Your task to perform on an android device: turn smart compose on in the gmail app Image 0: 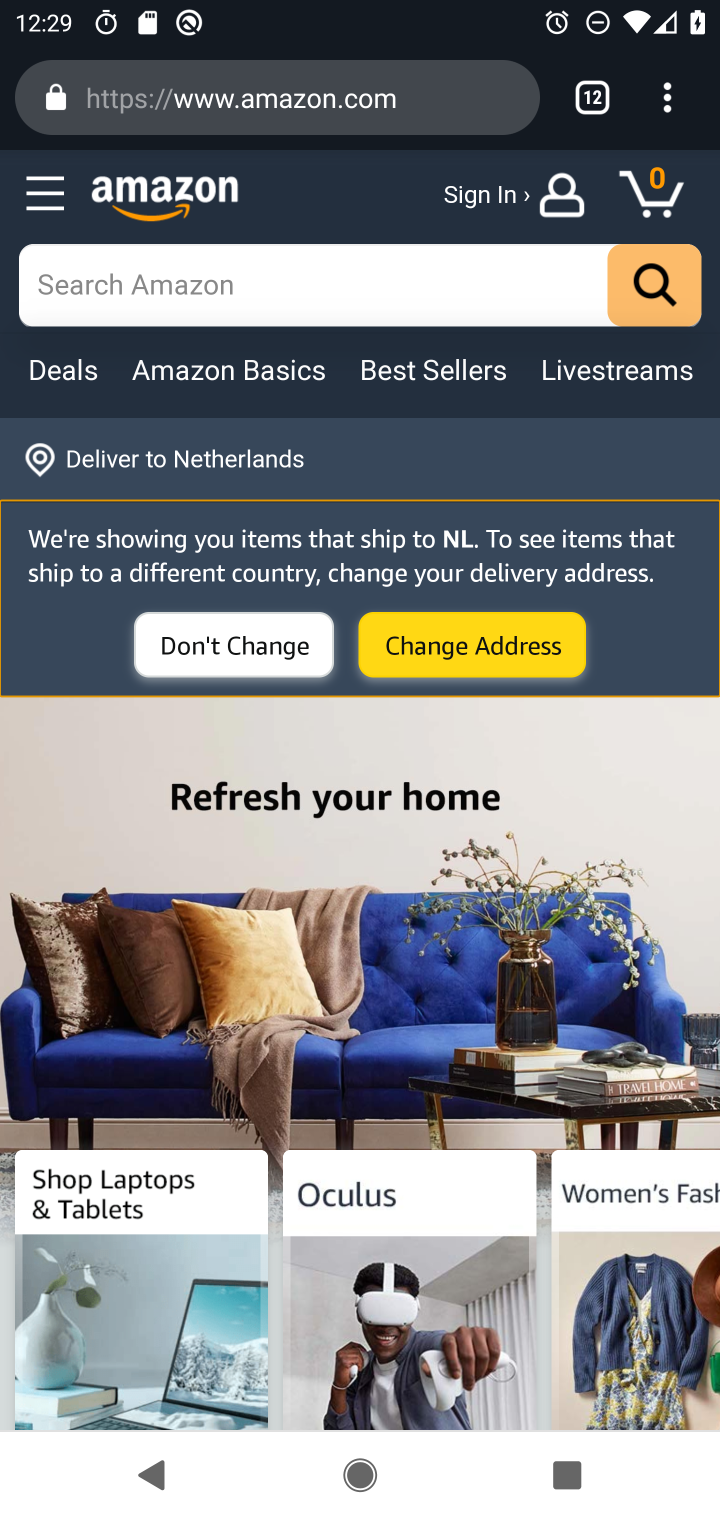
Step 0: press home button
Your task to perform on an android device: turn smart compose on in the gmail app Image 1: 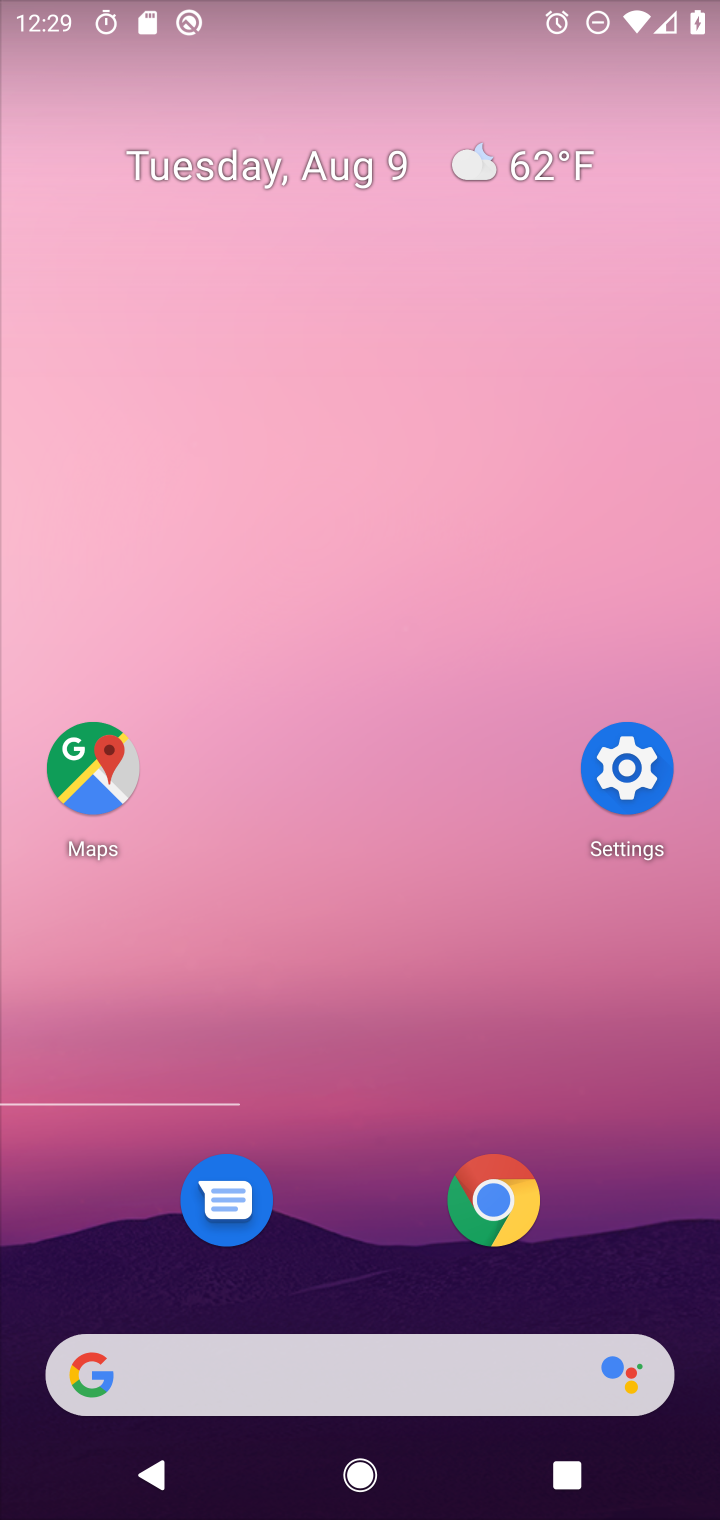
Step 1: drag from (322, 1363) to (548, 166)
Your task to perform on an android device: turn smart compose on in the gmail app Image 2: 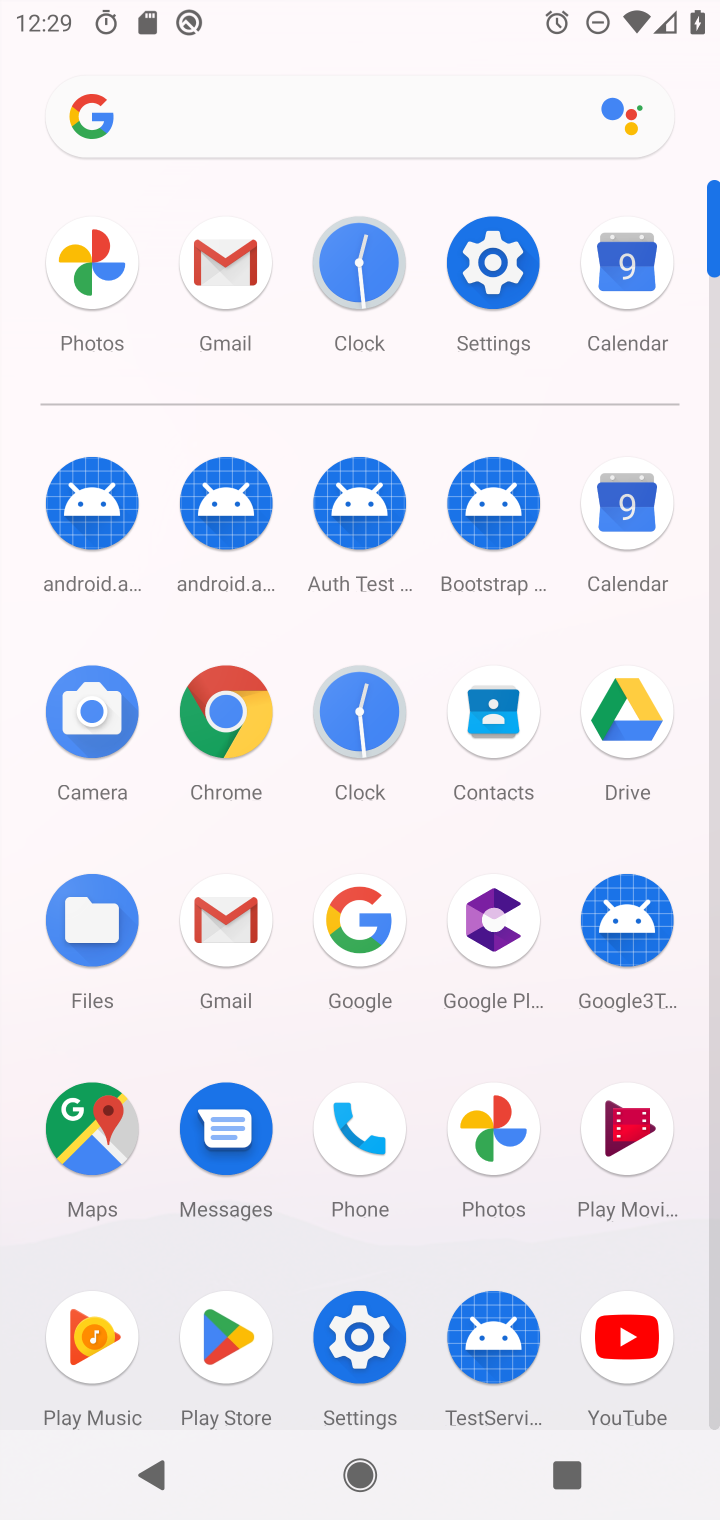
Step 2: click (220, 275)
Your task to perform on an android device: turn smart compose on in the gmail app Image 3: 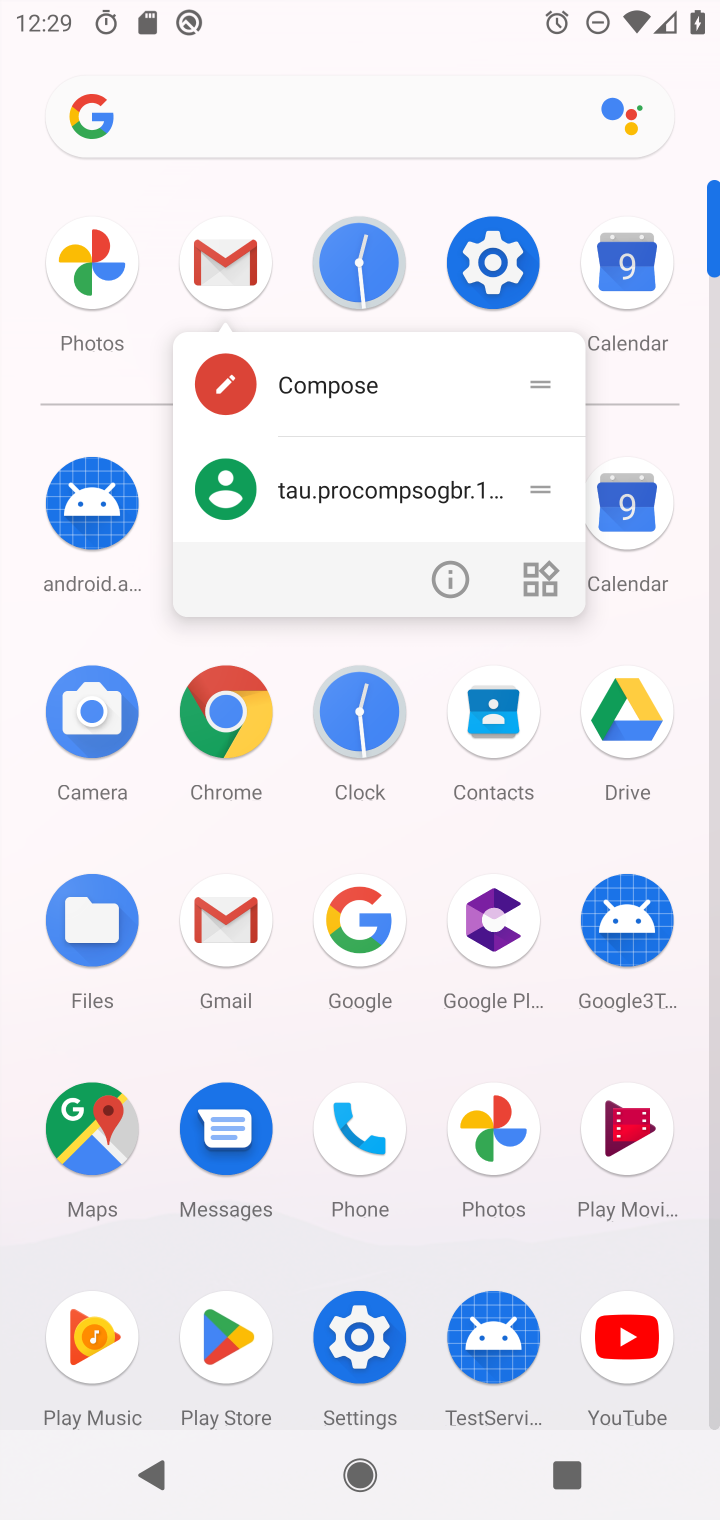
Step 3: click (220, 277)
Your task to perform on an android device: turn smart compose on in the gmail app Image 4: 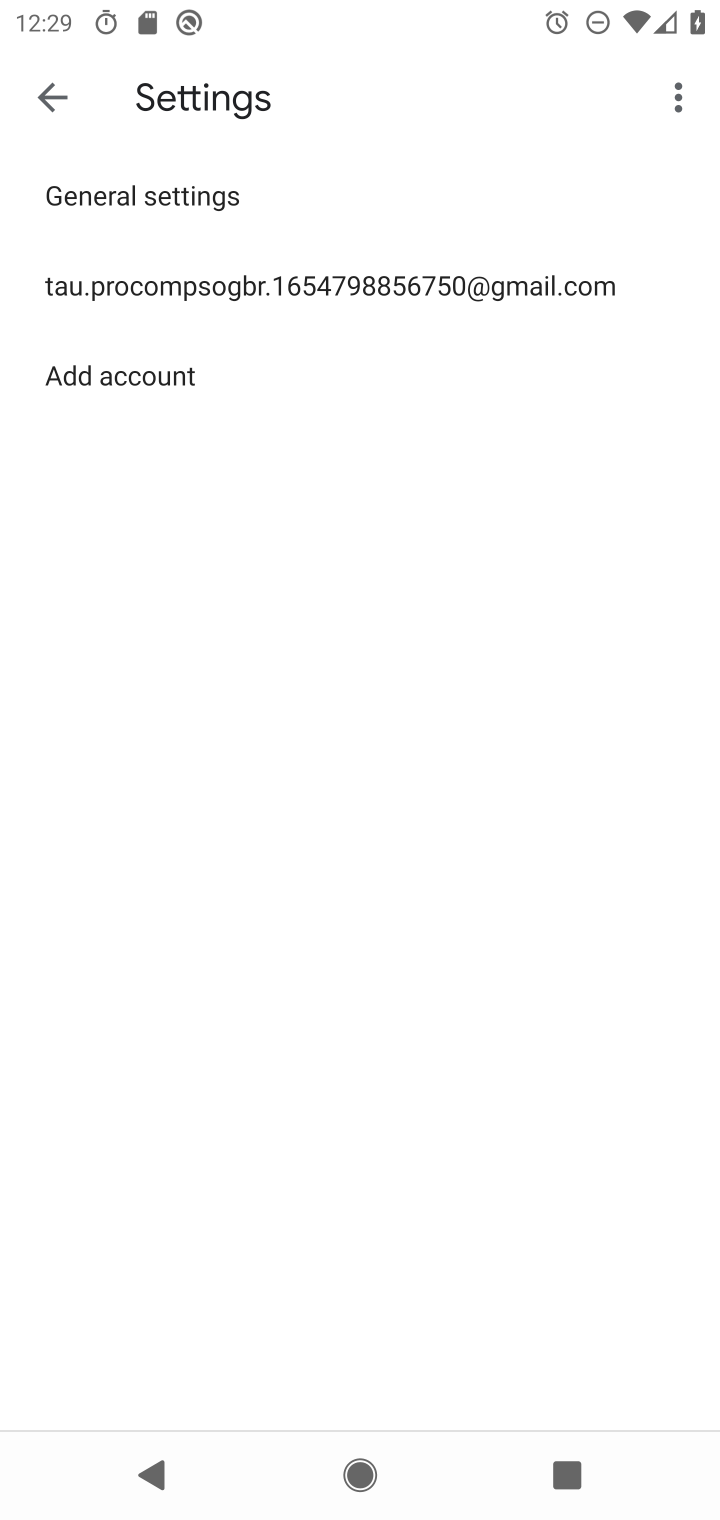
Step 4: click (220, 275)
Your task to perform on an android device: turn smart compose on in the gmail app Image 5: 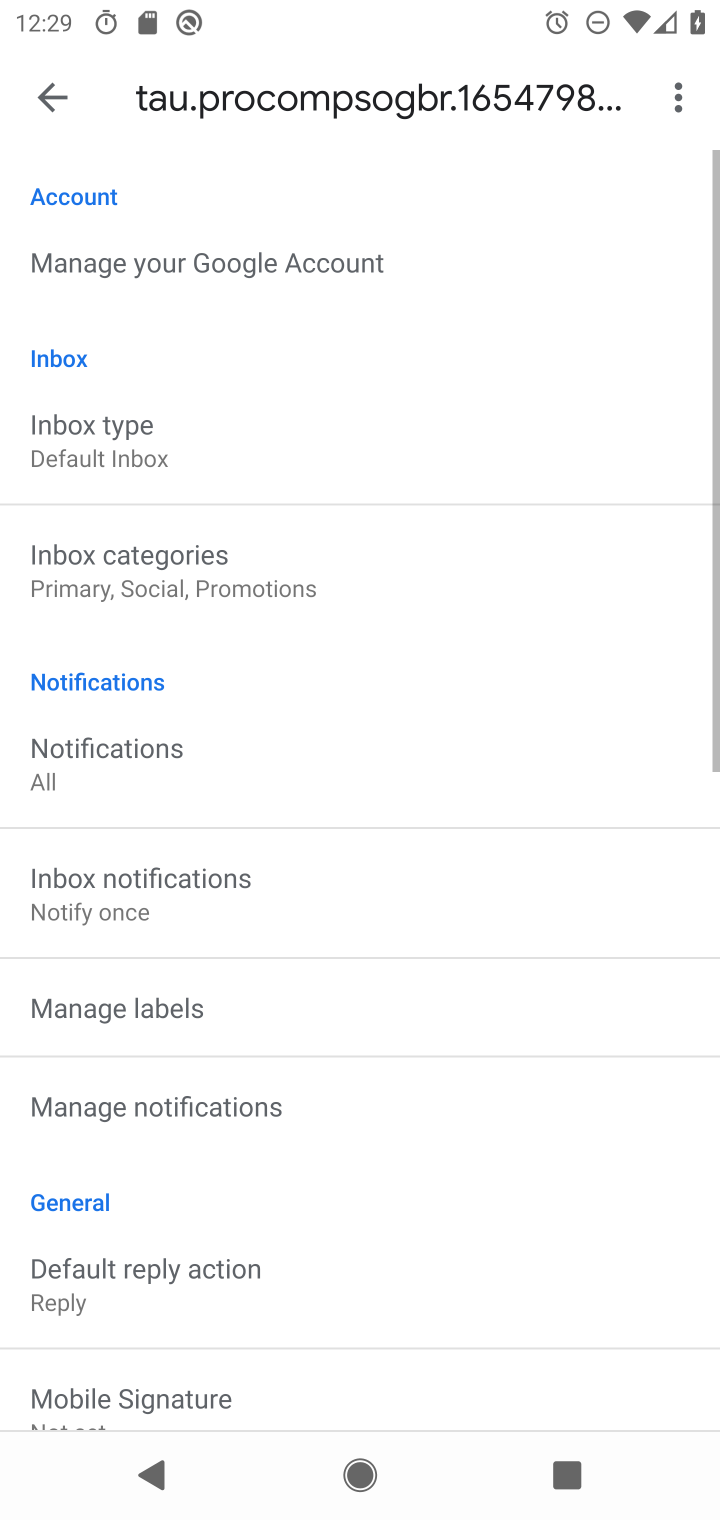
Step 5: task complete